Your task to perform on an android device: Open battery settings Image 0: 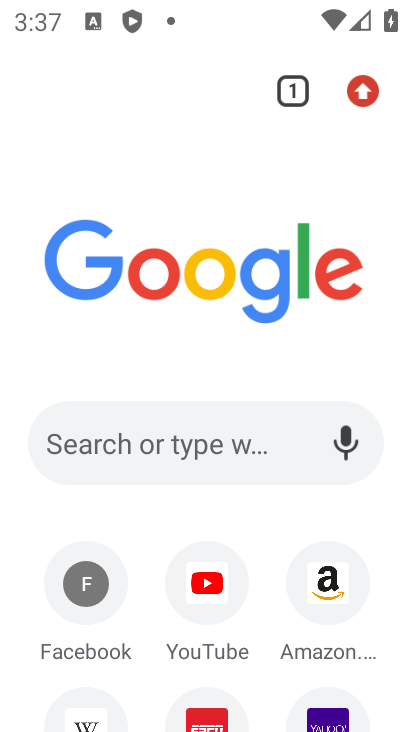
Step 0: press home button
Your task to perform on an android device: Open battery settings Image 1: 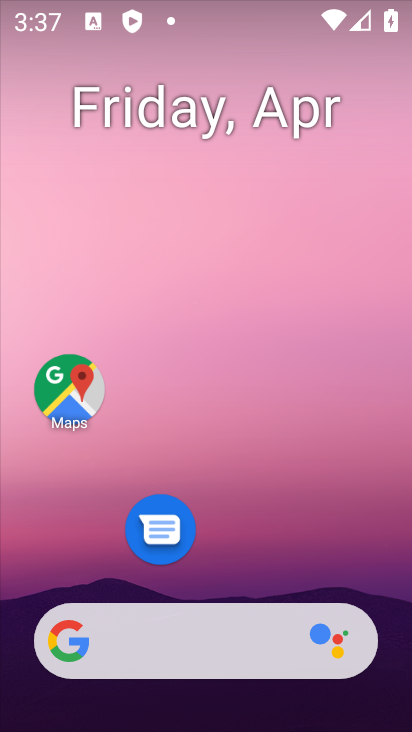
Step 1: drag from (261, 557) to (295, 166)
Your task to perform on an android device: Open battery settings Image 2: 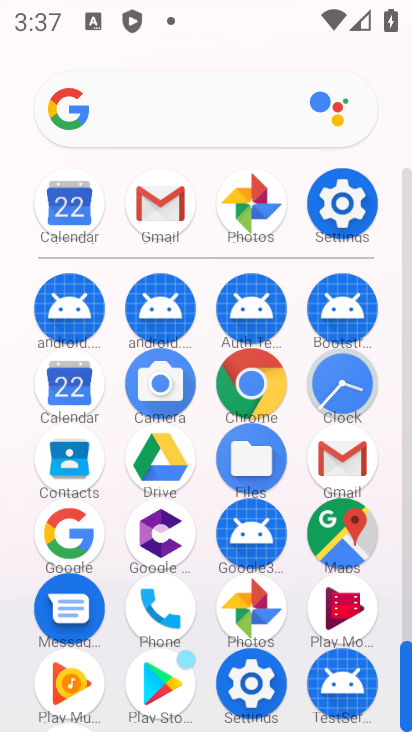
Step 2: click (336, 213)
Your task to perform on an android device: Open battery settings Image 3: 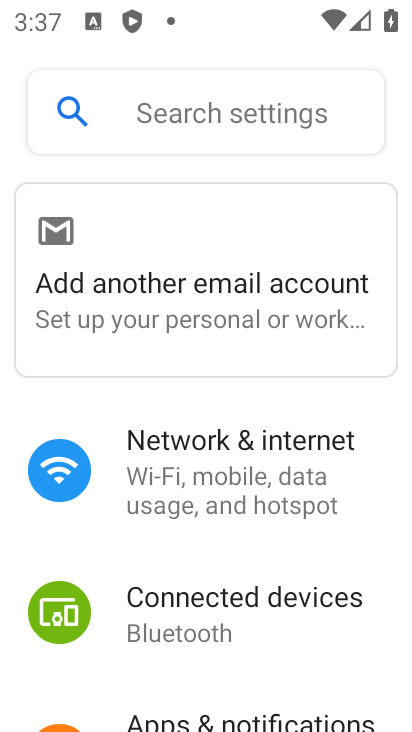
Step 3: drag from (267, 527) to (304, 324)
Your task to perform on an android device: Open battery settings Image 4: 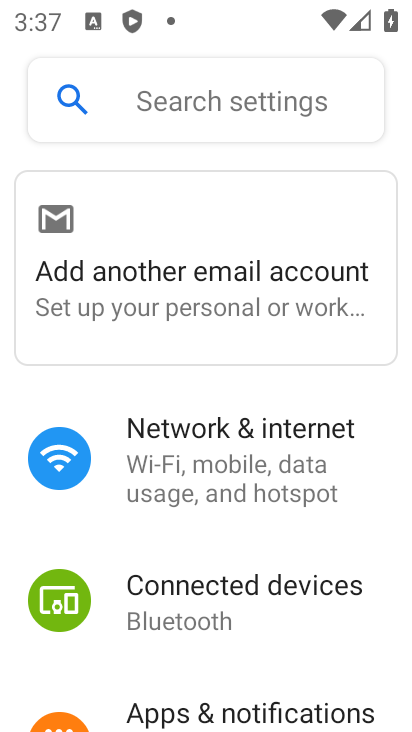
Step 4: drag from (265, 512) to (287, 257)
Your task to perform on an android device: Open battery settings Image 5: 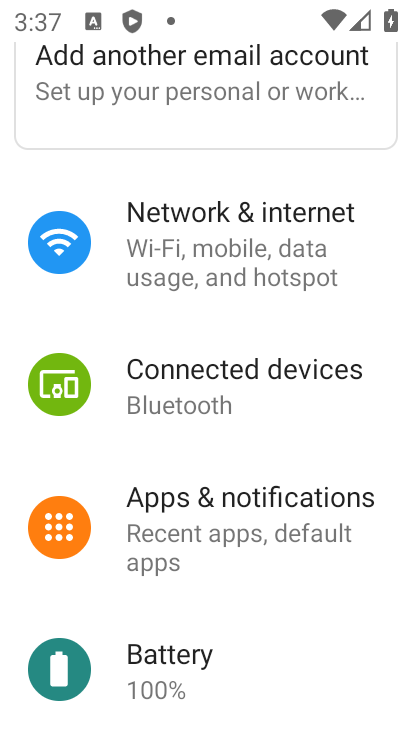
Step 5: drag from (273, 618) to (309, 275)
Your task to perform on an android device: Open battery settings Image 6: 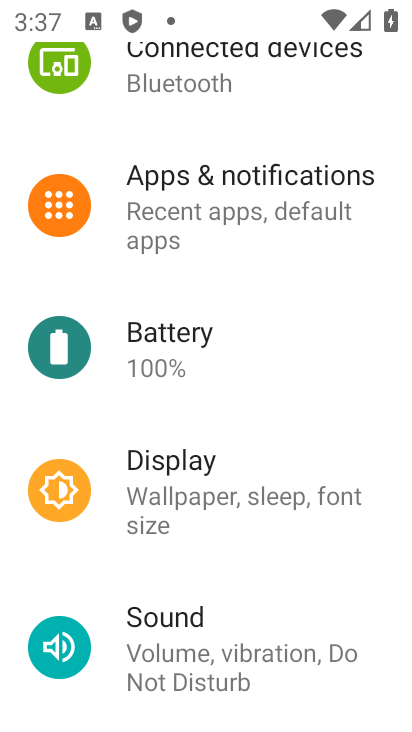
Step 6: click (254, 381)
Your task to perform on an android device: Open battery settings Image 7: 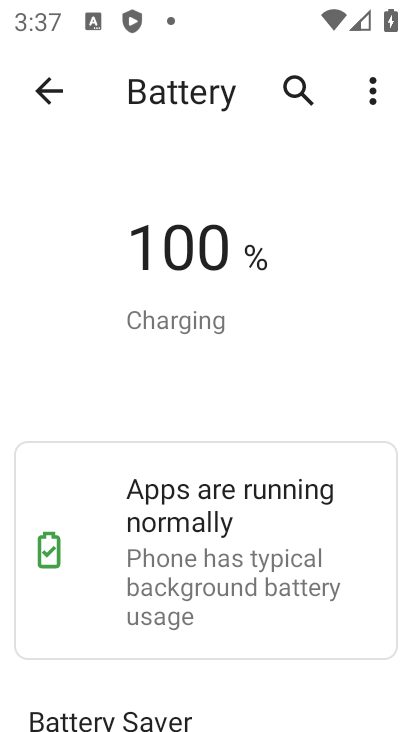
Step 7: task complete